Your task to perform on an android device: open device folders in google photos Image 0: 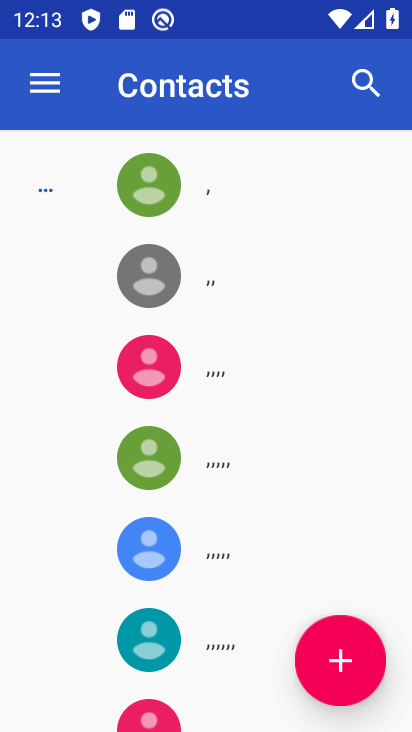
Step 0: press home button
Your task to perform on an android device: open device folders in google photos Image 1: 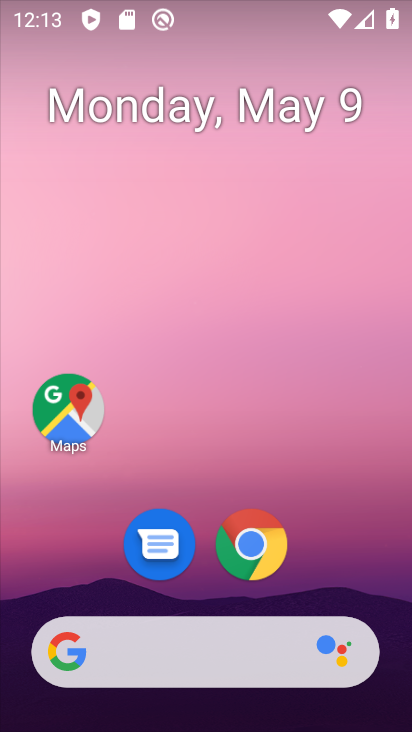
Step 1: drag from (318, 535) to (378, 44)
Your task to perform on an android device: open device folders in google photos Image 2: 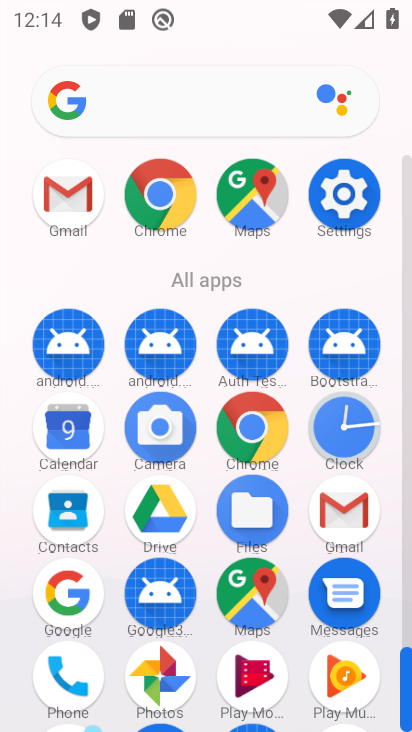
Step 2: click (147, 670)
Your task to perform on an android device: open device folders in google photos Image 3: 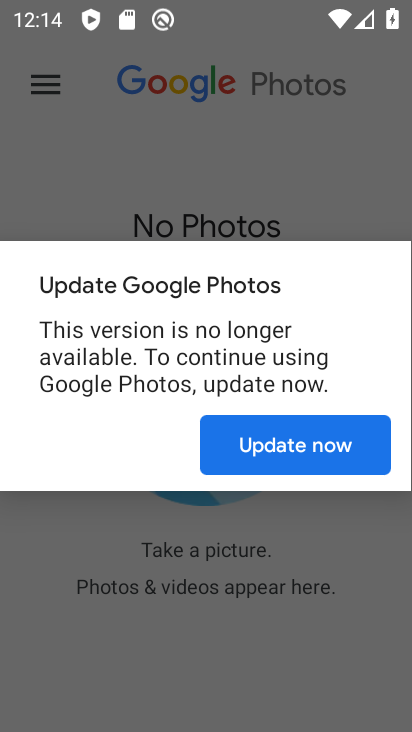
Step 3: click (333, 465)
Your task to perform on an android device: open device folders in google photos Image 4: 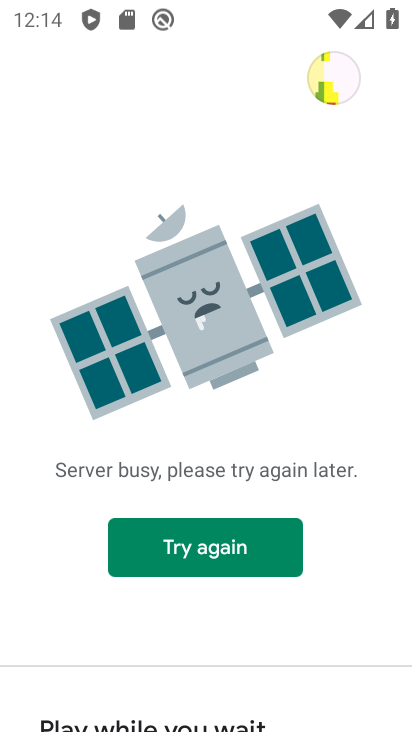
Step 4: click (263, 540)
Your task to perform on an android device: open device folders in google photos Image 5: 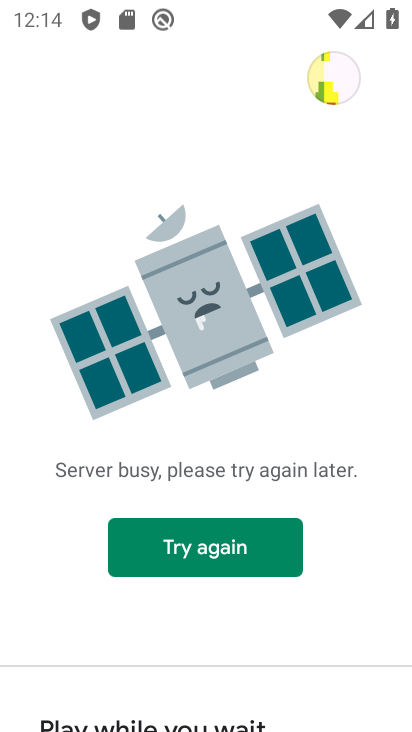
Step 5: task complete